Your task to perform on an android device: turn on priority inbox in the gmail app Image 0: 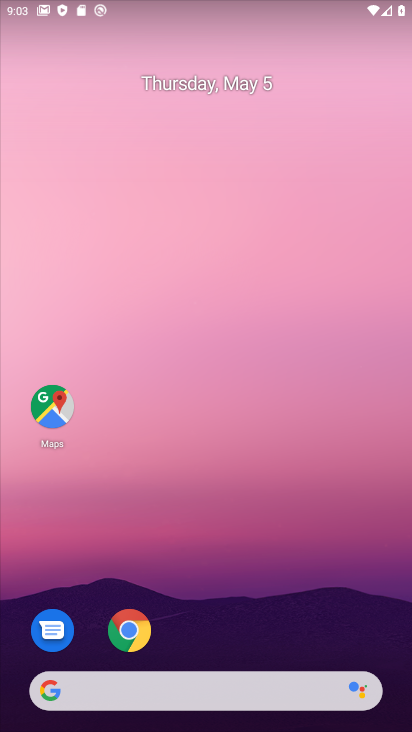
Step 0: drag from (135, 411) to (59, 110)
Your task to perform on an android device: turn on priority inbox in the gmail app Image 1: 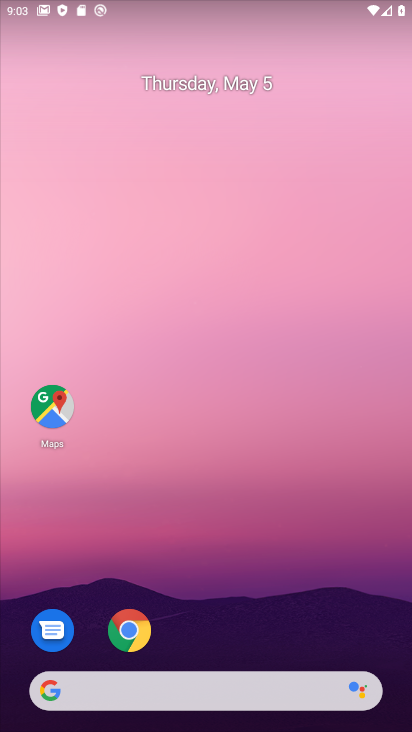
Step 1: drag from (196, 520) to (195, 63)
Your task to perform on an android device: turn on priority inbox in the gmail app Image 2: 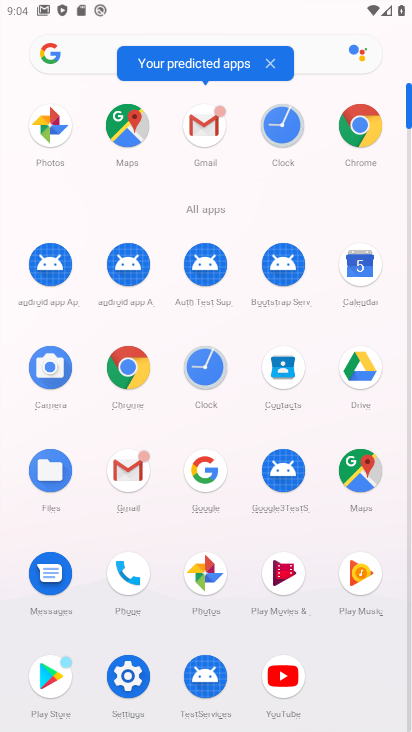
Step 2: click (206, 135)
Your task to perform on an android device: turn on priority inbox in the gmail app Image 3: 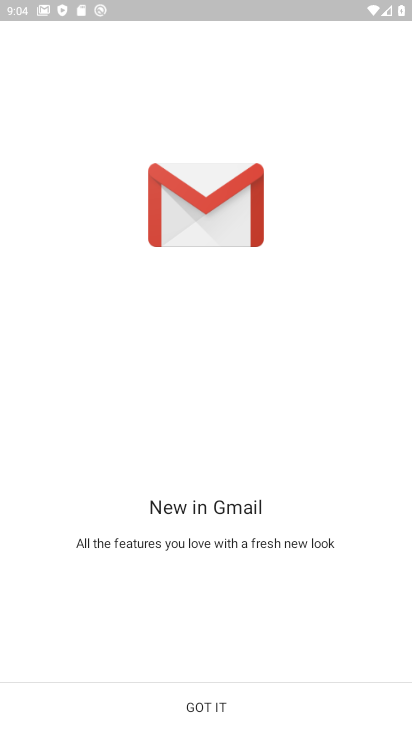
Step 3: click (208, 704)
Your task to perform on an android device: turn on priority inbox in the gmail app Image 4: 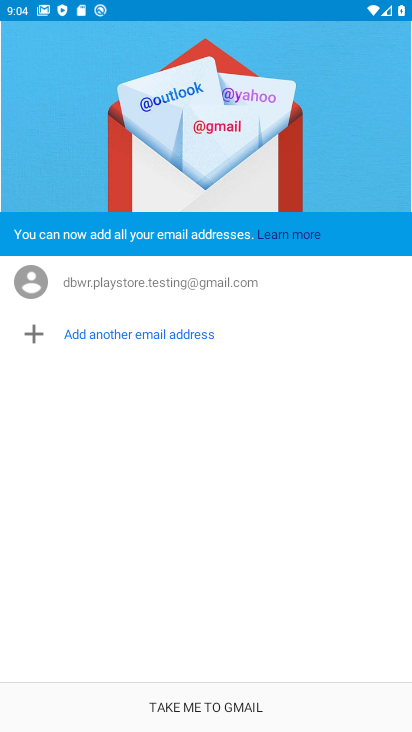
Step 4: click (208, 704)
Your task to perform on an android device: turn on priority inbox in the gmail app Image 5: 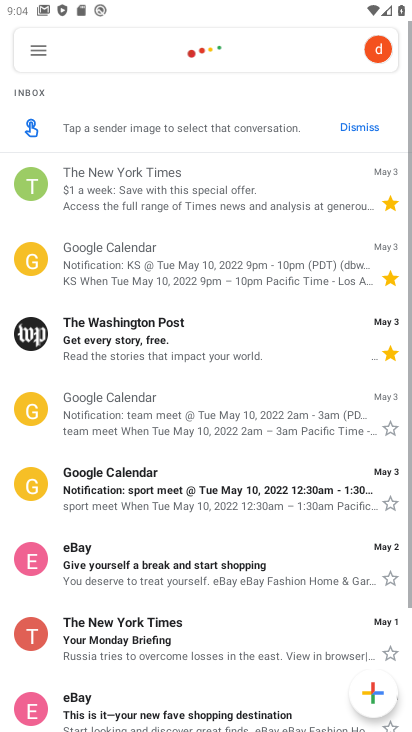
Step 5: click (44, 45)
Your task to perform on an android device: turn on priority inbox in the gmail app Image 6: 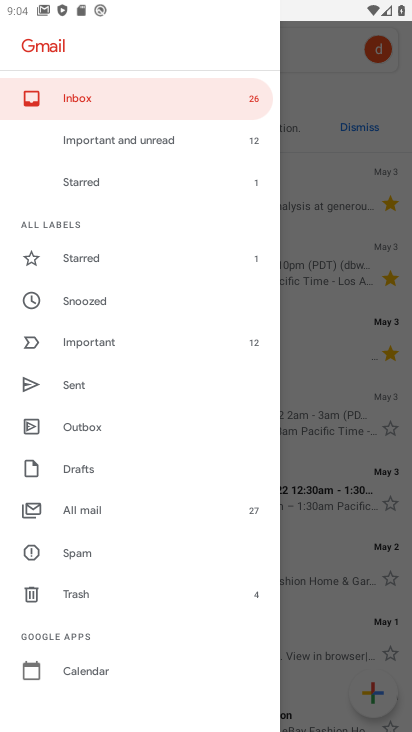
Step 6: drag from (83, 671) to (57, 245)
Your task to perform on an android device: turn on priority inbox in the gmail app Image 7: 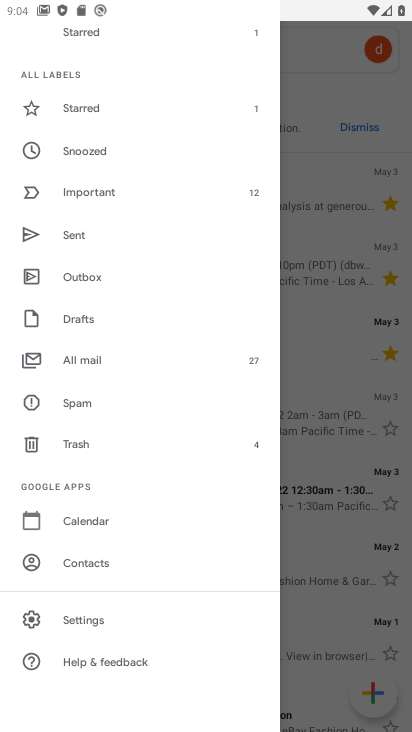
Step 7: click (71, 619)
Your task to perform on an android device: turn on priority inbox in the gmail app Image 8: 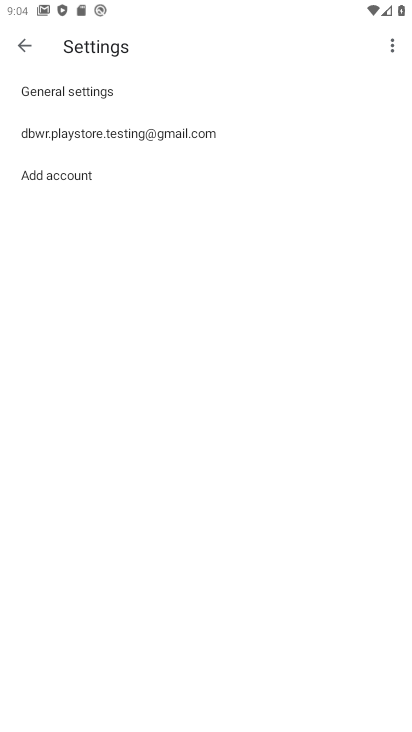
Step 8: click (120, 129)
Your task to perform on an android device: turn on priority inbox in the gmail app Image 9: 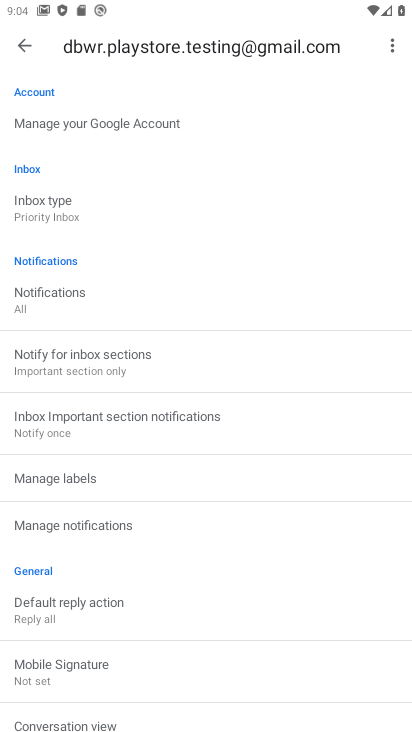
Step 9: click (54, 213)
Your task to perform on an android device: turn on priority inbox in the gmail app Image 10: 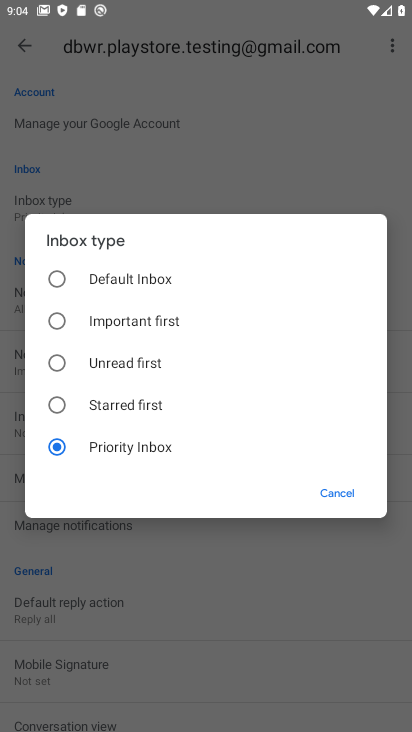
Step 10: task complete